Your task to perform on an android device: open device folders in google photos Image 0: 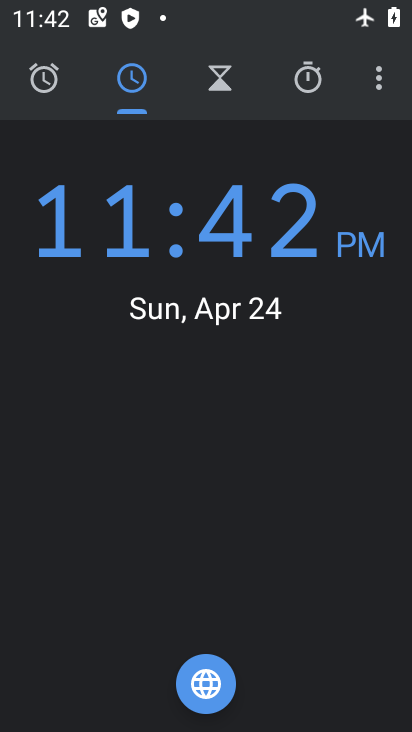
Step 0: press home button
Your task to perform on an android device: open device folders in google photos Image 1: 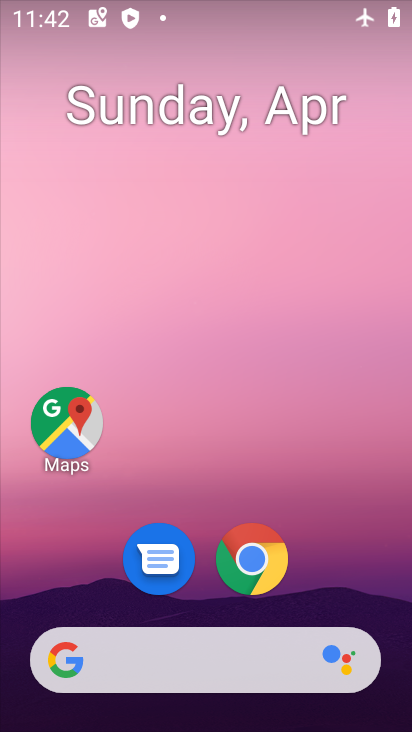
Step 1: drag from (348, 584) to (327, 102)
Your task to perform on an android device: open device folders in google photos Image 2: 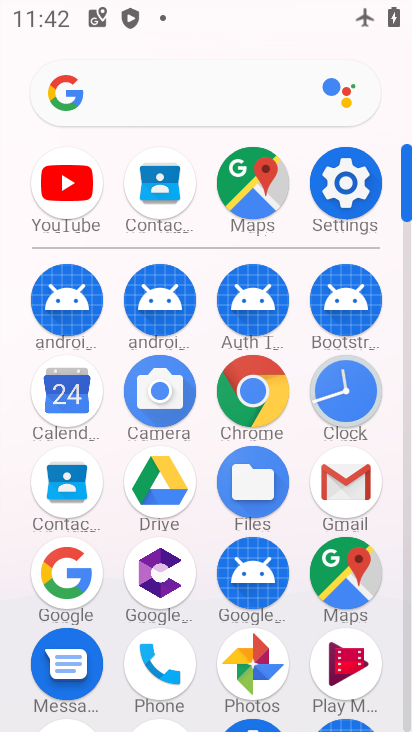
Step 2: click (250, 647)
Your task to perform on an android device: open device folders in google photos Image 3: 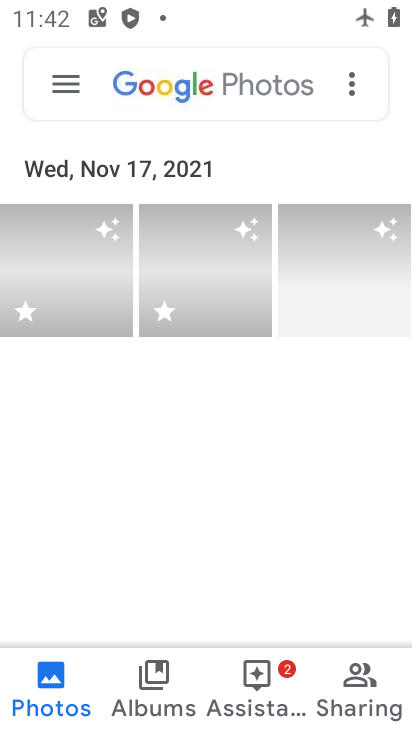
Step 3: click (69, 85)
Your task to perform on an android device: open device folders in google photos Image 4: 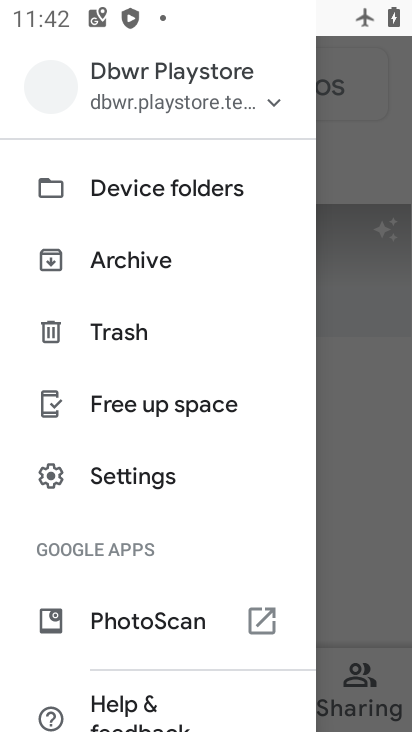
Step 4: click (109, 182)
Your task to perform on an android device: open device folders in google photos Image 5: 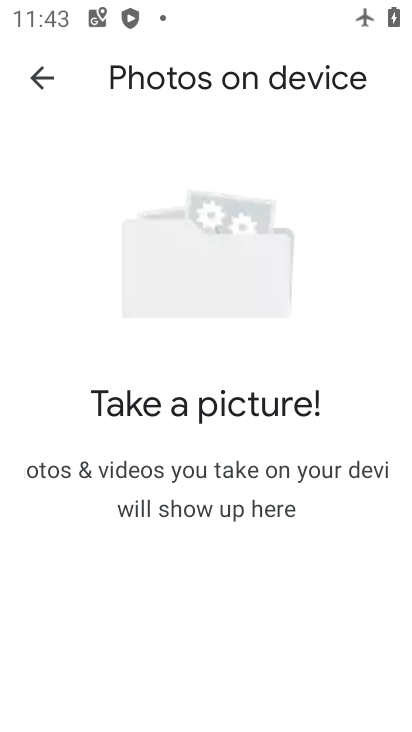
Step 5: task complete